Your task to perform on an android device: Open accessibility settings Image 0: 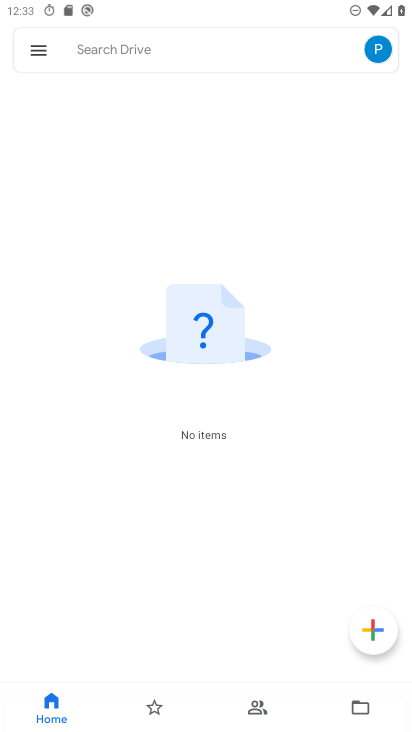
Step 0: press home button
Your task to perform on an android device: Open accessibility settings Image 1: 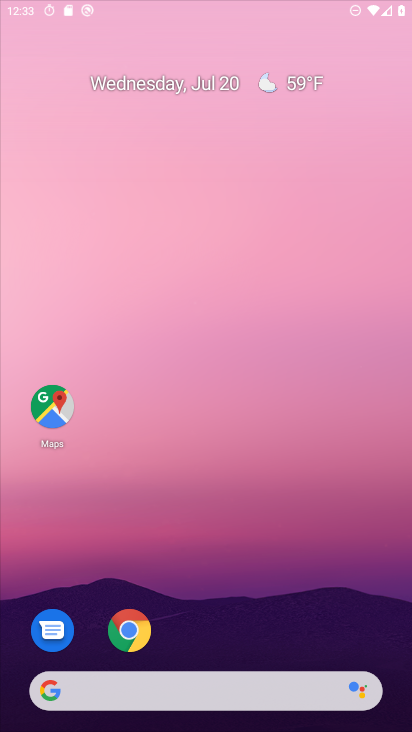
Step 1: drag from (315, 571) to (357, 27)
Your task to perform on an android device: Open accessibility settings Image 2: 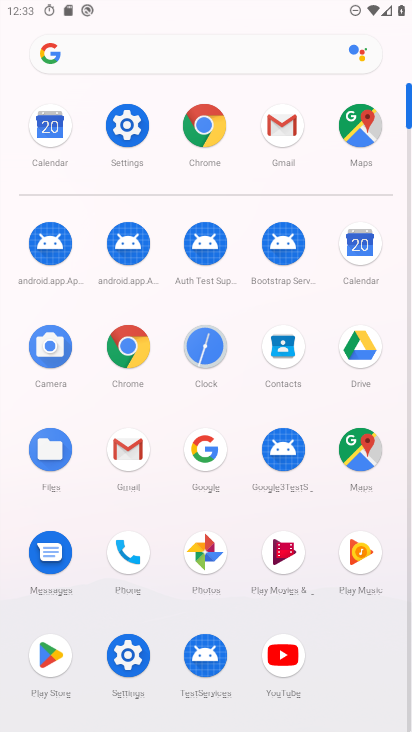
Step 2: click (134, 116)
Your task to perform on an android device: Open accessibility settings Image 3: 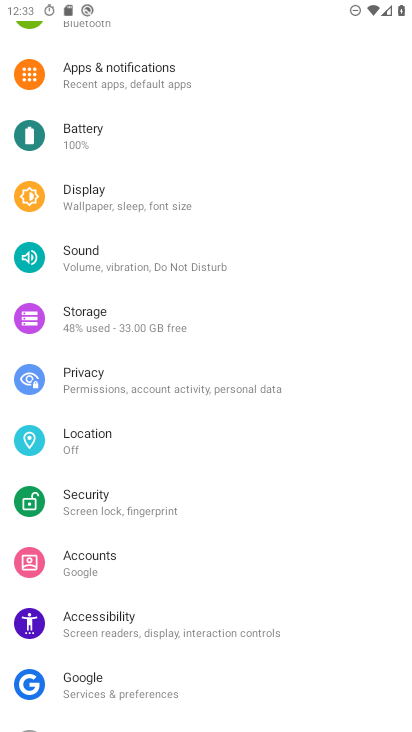
Step 3: click (139, 626)
Your task to perform on an android device: Open accessibility settings Image 4: 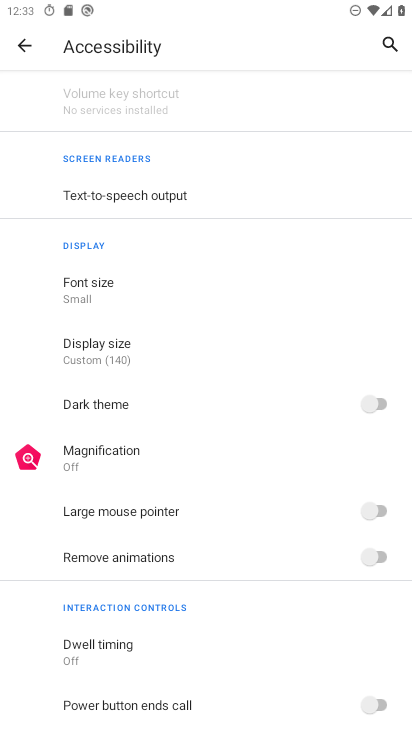
Step 4: task complete